Your task to perform on an android device: Is it going to rain tomorrow? Image 0: 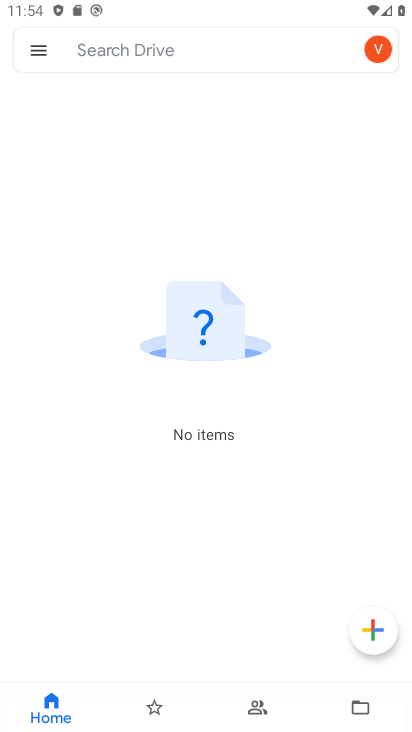
Step 0: press home button
Your task to perform on an android device: Is it going to rain tomorrow? Image 1: 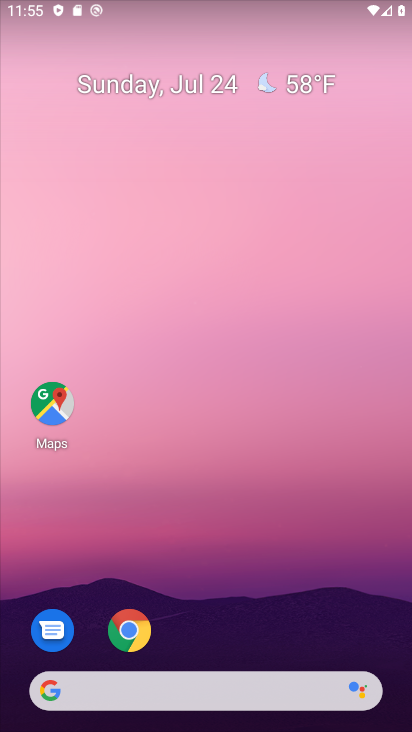
Step 1: click (139, 639)
Your task to perform on an android device: Is it going to rain tomorrow? Image 2: 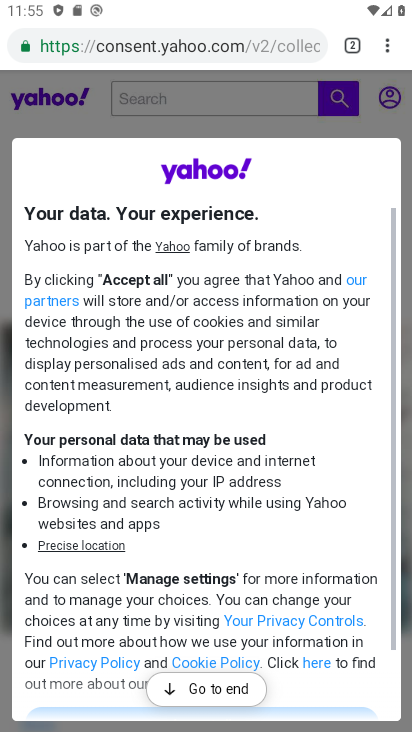
Step 2: click (235, 47)
Your task to perform on an android device: Is it going to rain tomorrow? Image 3: 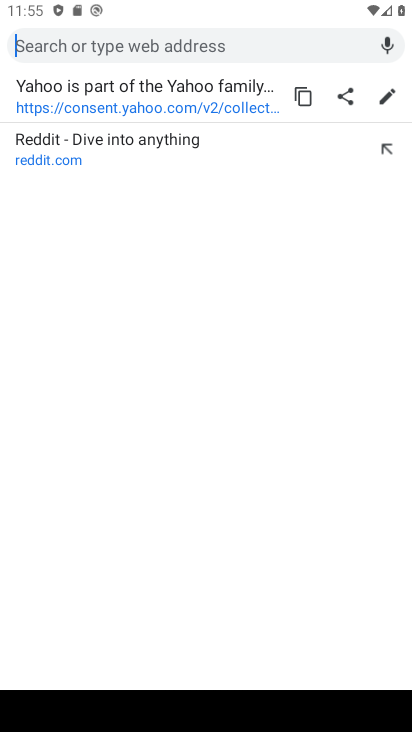
Step 3: type "Is it going to rain tomorrow?"
Your task to perform on an android device: Is it going to rain tomorrow? Image 4: 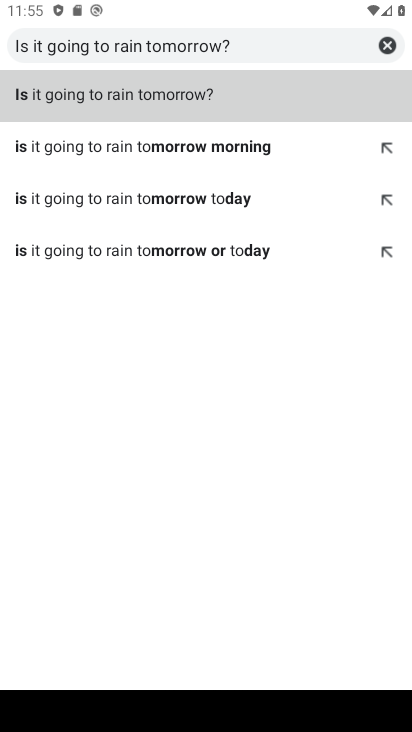
Step 4: click (218, 104)
Your task to perform on an android device: Is it going to rain tomorrow? Image 5: 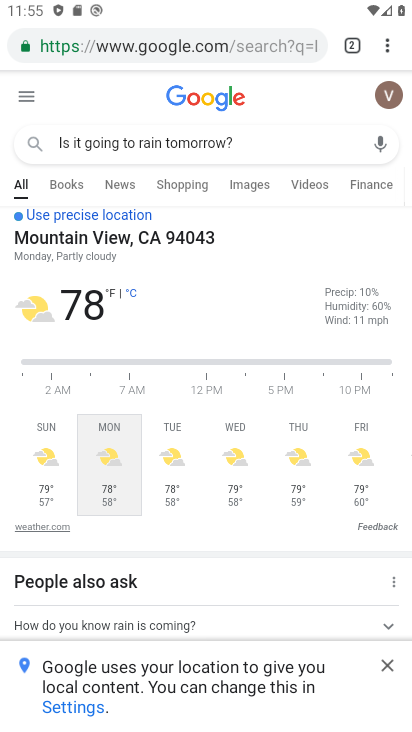
Step 5: task complete